Your task to perform on an android device: Show me popular games on the Play Store Image 0: 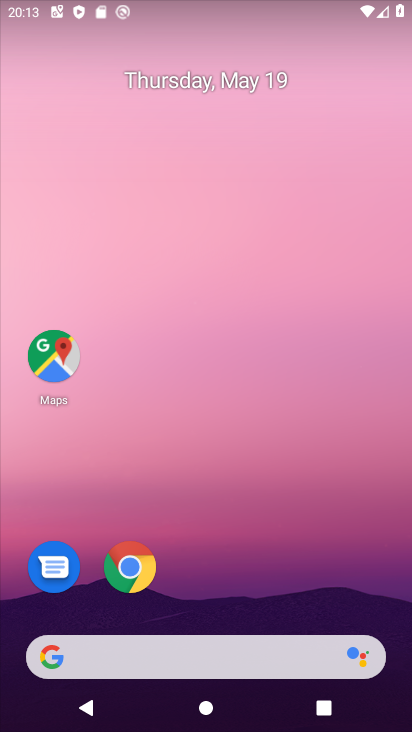
Step 0: drag from (209, 569) to (152, 17)
Your task to perform on an android device: Show me popular games on the Play Store Image 1: 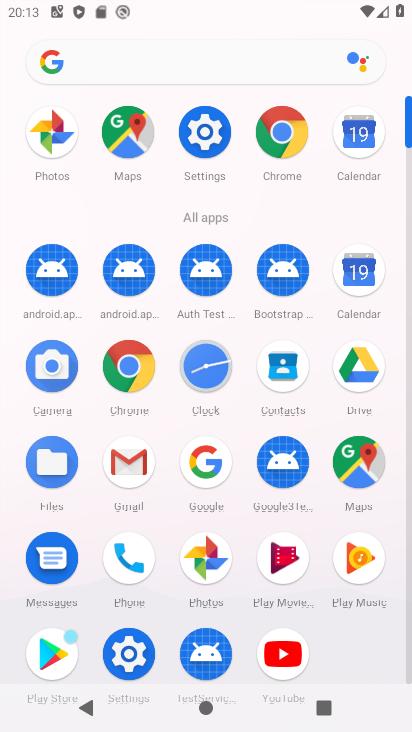
Step 1: click (44, 640)
Your task to perform on an android device: Show me popular games on the Play Store Image 2: 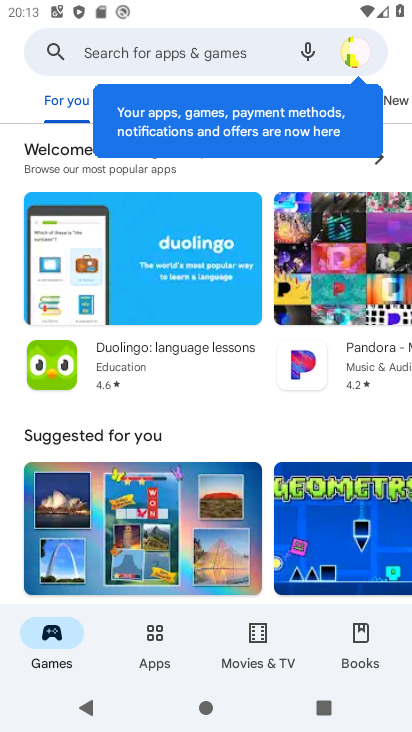
Step 2: drag from (63, 106) to (27, 97)
Your task to perform on an android device: Show me popular games on the Play Store Image 3: 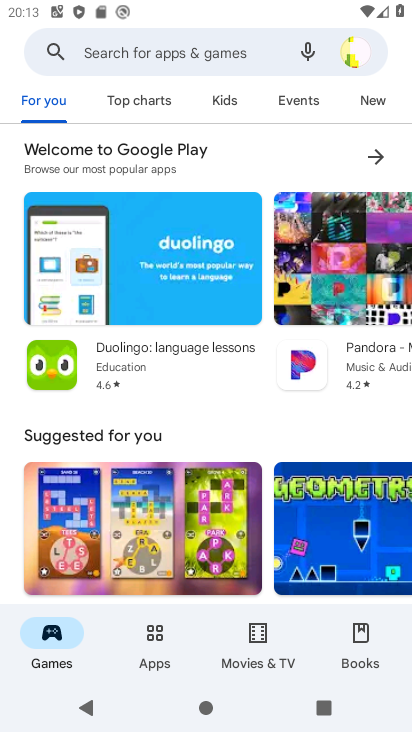
Step 3: click (147, 102)
Your task to perform on an android device: Show me popular games on the Play Store Image 4: 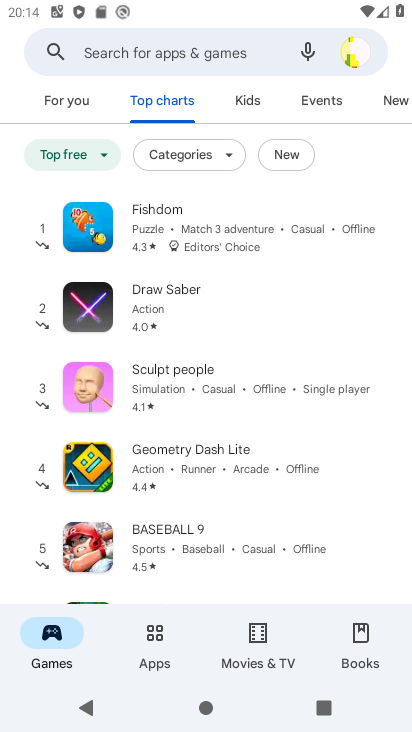
Step 4: task complete